Your task to perform on an android device: open app "McDonald's" Image 0: 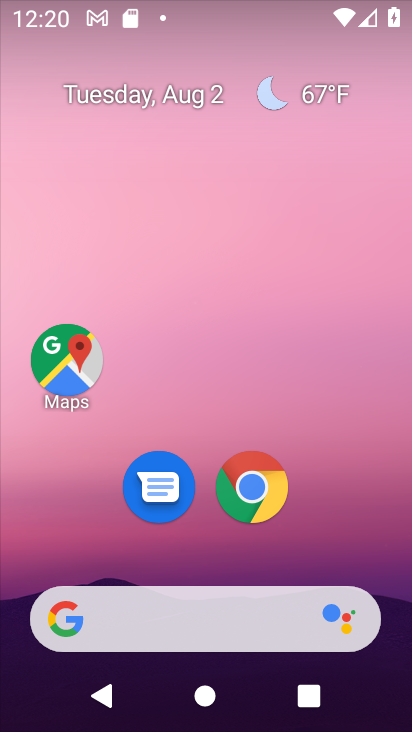
Step 0: drag from (217, 614) to (266, 202)
Your task to perform on an android device: open app "McDonald's" Image 1: 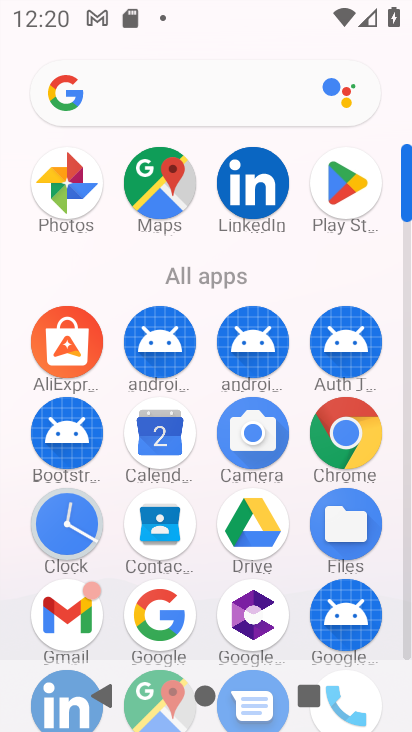
Step 1: click (341, 204)
Your task to perform on an android device: open app "McDonald's" Image 2: 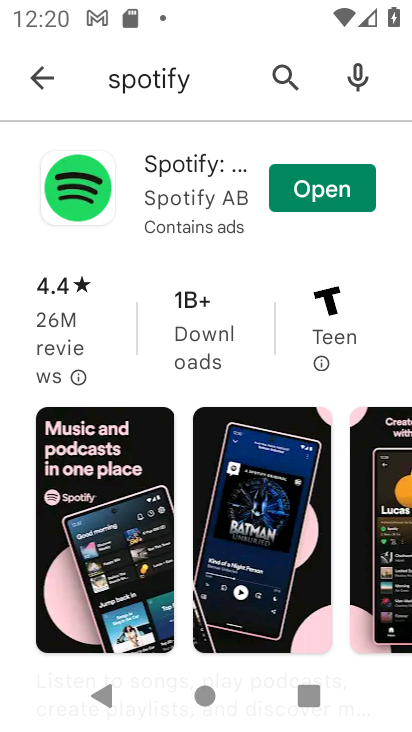
Step 2: click (42, 75)
Your task to perform on an android device: open app "McDonald's" Image 3: 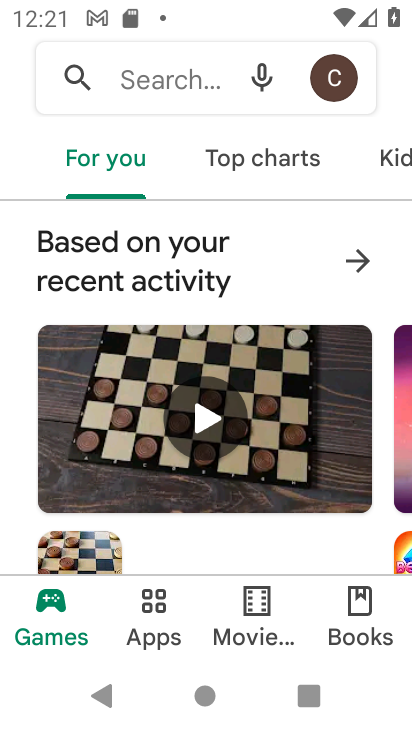
Step 3: click (165, 83)
Your task to perform on an android device: open app "McDonald's" Image 4: 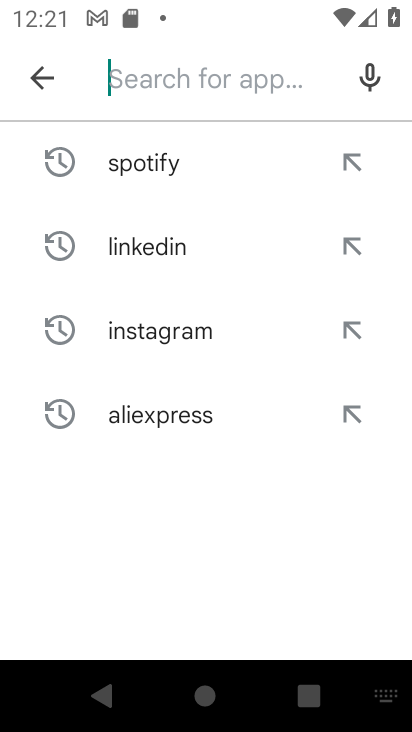
Step 4: type "McDonald's"
Your task to perform on an android device: open app "McDonald's" Image 5: 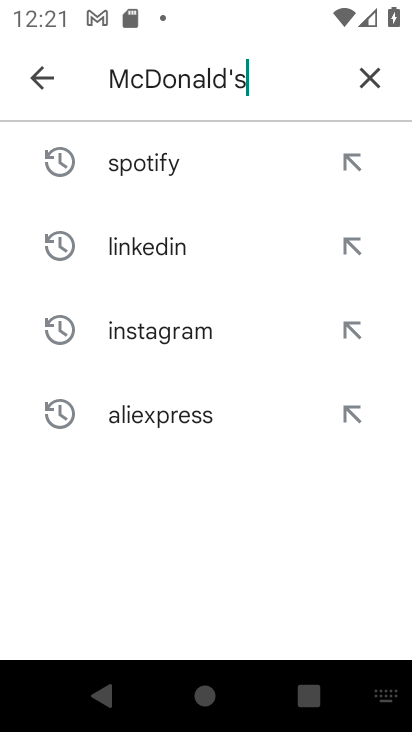
Step 5: type ""
Your task to perform on an android device: open app "McDonald's" Image 6: 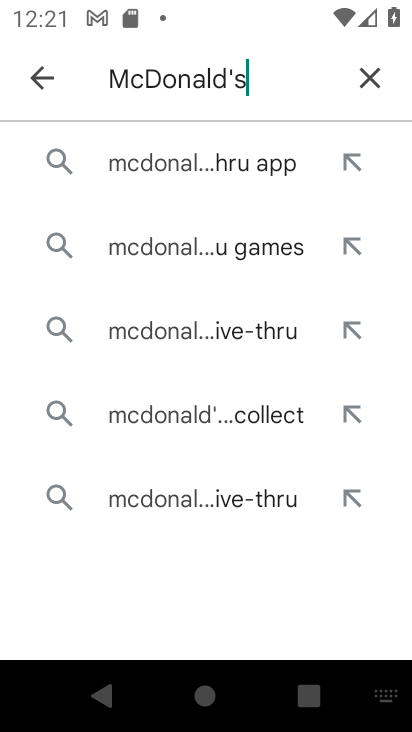
Step 6: click (248, 167)
Your task to perform on an android device: open app "McDonald's" Image 7: 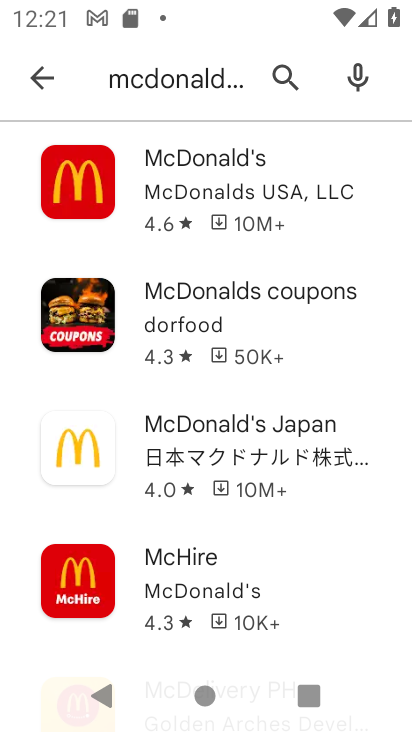
Step 7: click (243, 180)
Your task to perform on an android device: open app "McDonald's" Image 8: 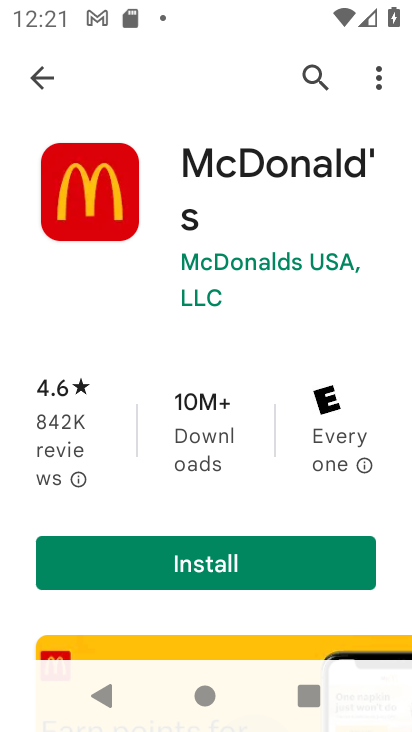
Step 8: task complete